Your task to perform on an android device: turn smart compose on in the gmail app Image 0: 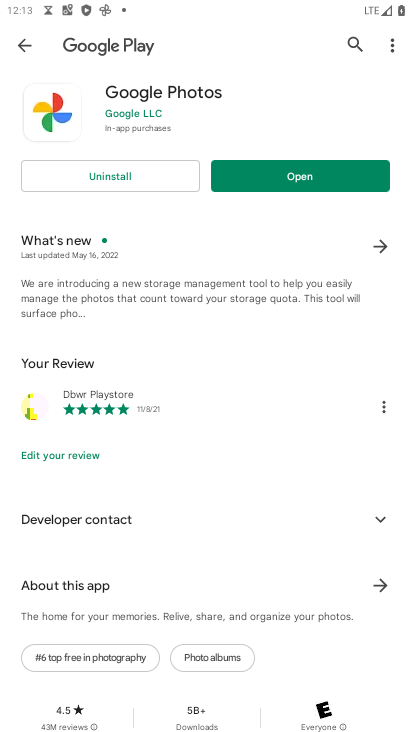
Step 0: press home button
Your task to perform on an android device: turn smart compose on in the gmail app Image 1: 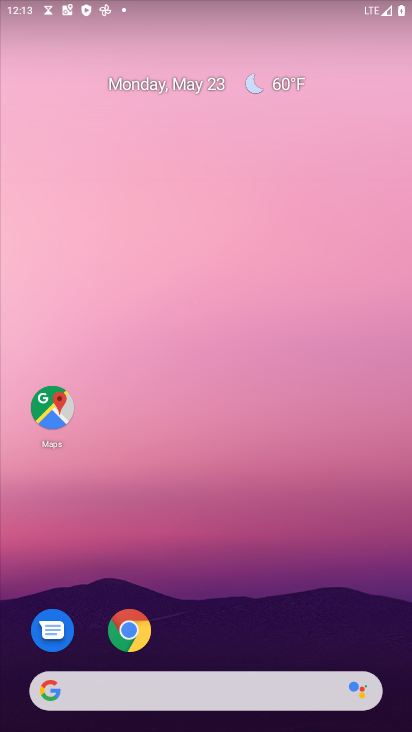
Step 1: drag from (225, 614) to (173, 90)
Your task to perform on an android device: turn smart compose on in the gmail app Image 2: 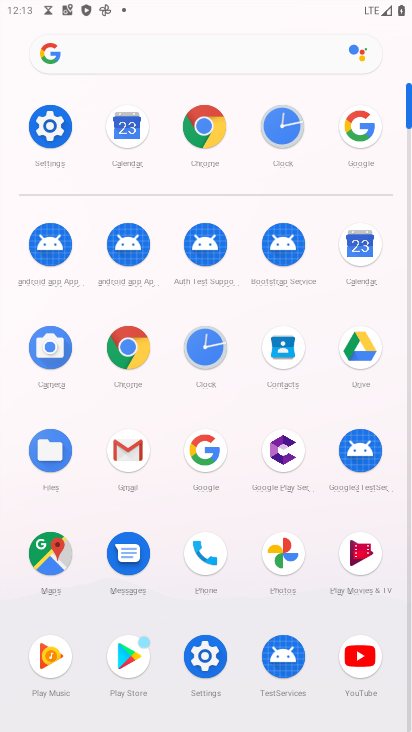
Step 2: click (131, 451)
Your task to perform on an android device: turn smart compose on in the gmail app Image 3: 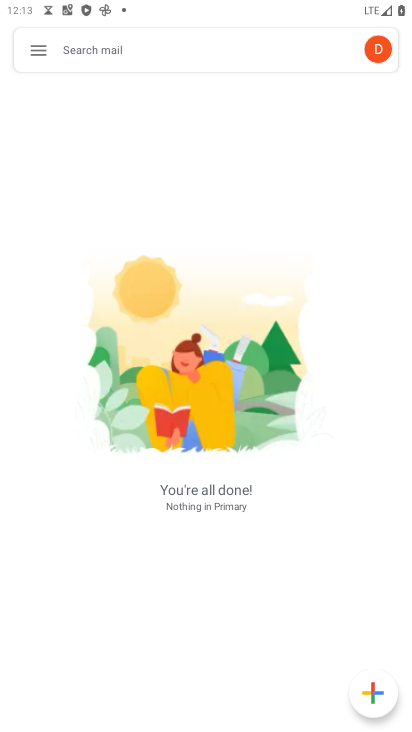
Step 3: click (39, 52)
Your task to perform on an android device: turn smart compose on in the gmail app Image 4: 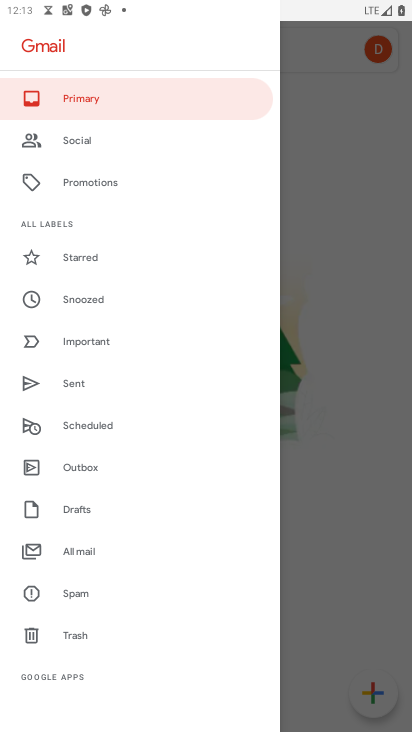
Step 4: drag from (71, 651) to (144, 548)
Your task to perform on an android device: turn smart compose on in the gmail app Image 5: 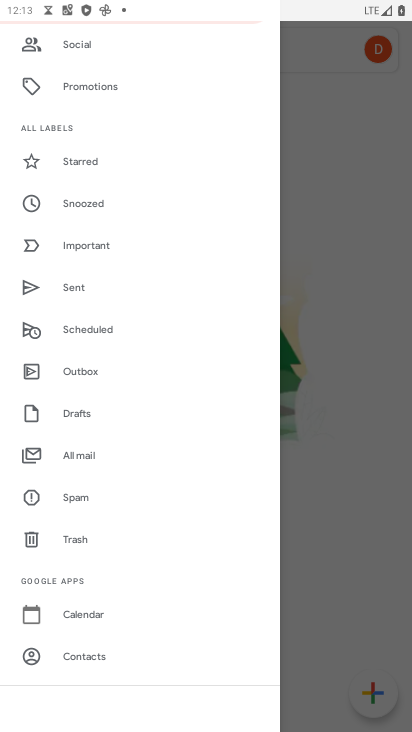
Step 5: drag from (70, 640) to (123, 530)
Your task to perform on an android device: turn smart compose on in the gmail app Image 6: 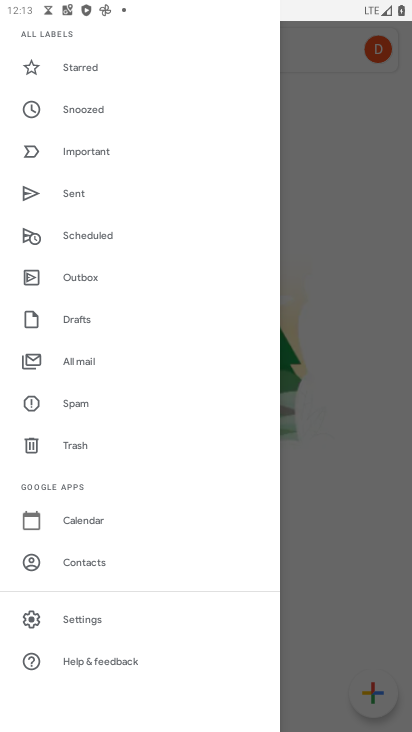
Step 6: click (70, 620)
Your task to perform on an android device: turn smart compose on in the gmail app Image 7: 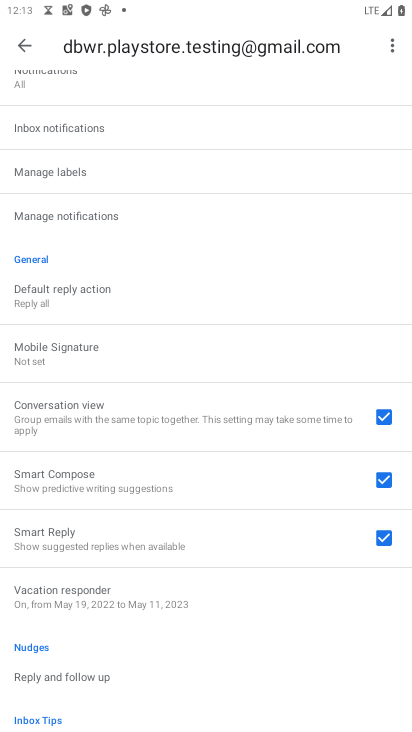
Step 7: task complete